Your task to perform on an android device: set an alarm Image 0: 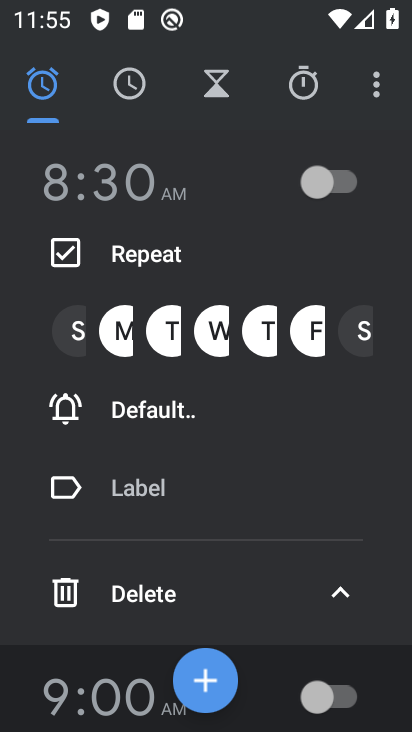
Step 0: click (212, 176)
Your task to perform on an android device: set an alarm Image 1: 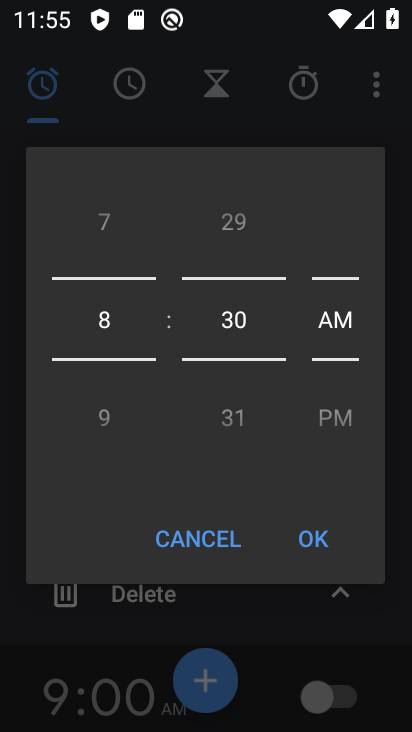
Step 1: click (311, 524)
Your task to perform on an android device: set an alarm Image 2: 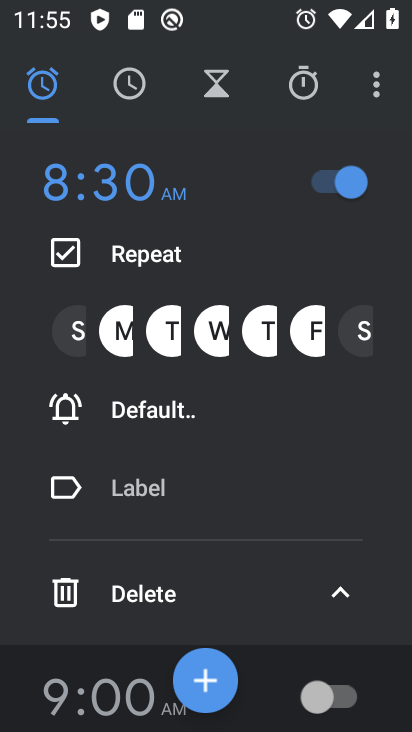
Step 2: task complete